Your task to perform on an android device: turn off picture-in-picture Image 0: 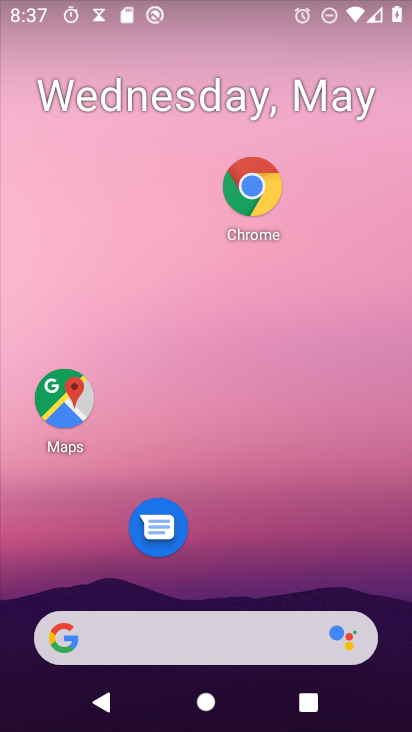
Step 0: click (245, 171)
Your task to perform on an android device: turn off picture-in-picture Image 1: 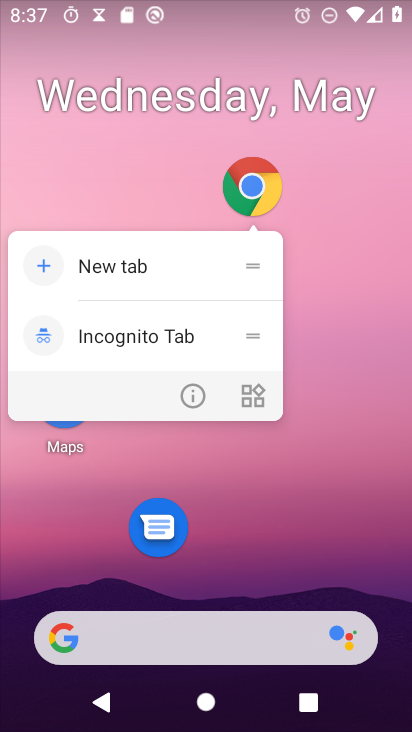
Step 1: click (193, 399)
Your task to perform on an android device: turn off picture-in-picture Image 2: 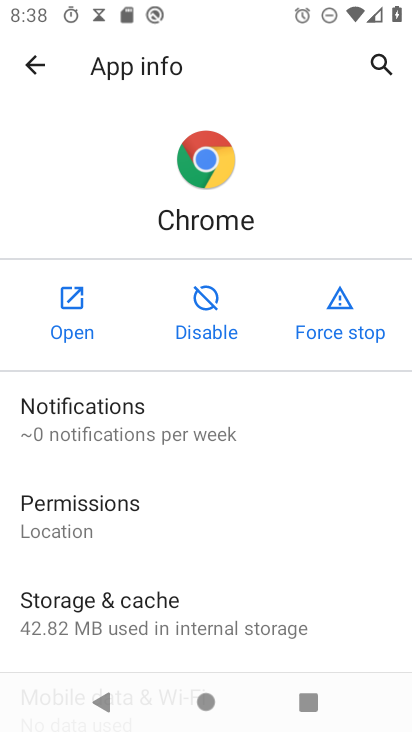
Step 2: drag from (303, 572) to (309, 81)
Your task to perform on an android device: turn off picture-in-picture Image 3: 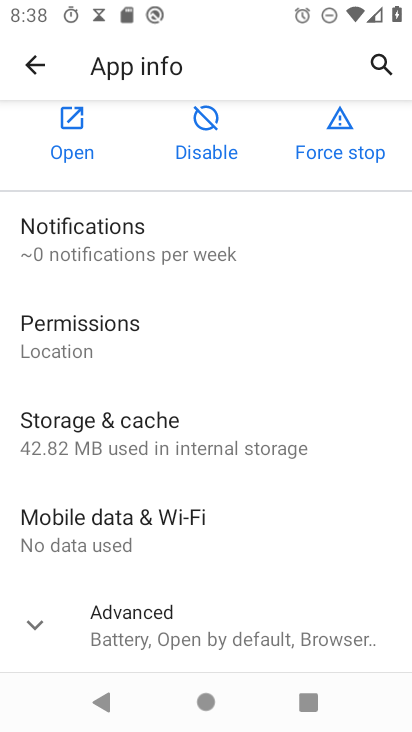
Step 3: click (147, 619)
Your task to perform on an android device: turn off picture-in-picture Image 4: 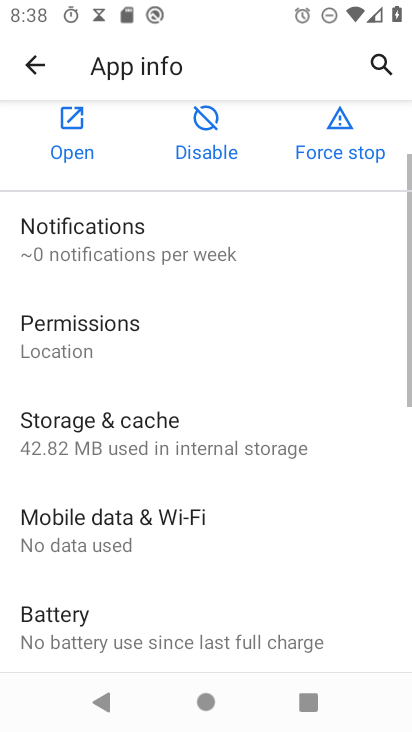
Step 4: drag from (355, 599) to (354, 170)
Your task to perform on an android device: turn off picture-in-picture Image 5: 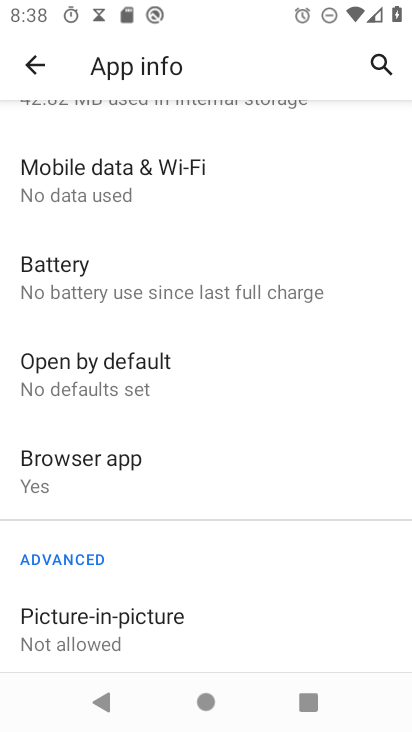
Step 5: click (96, 625)
Your task to perform on an android device: turn off picture-in-picture Image 6: 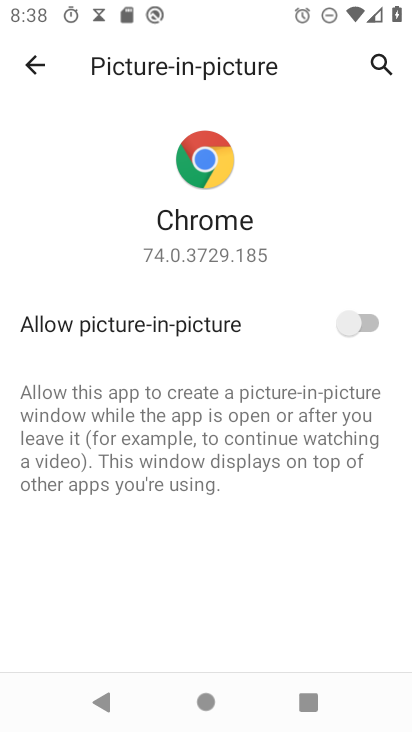
Step 6: task complete